Your task to perform on an android device: Open settings Image 0: 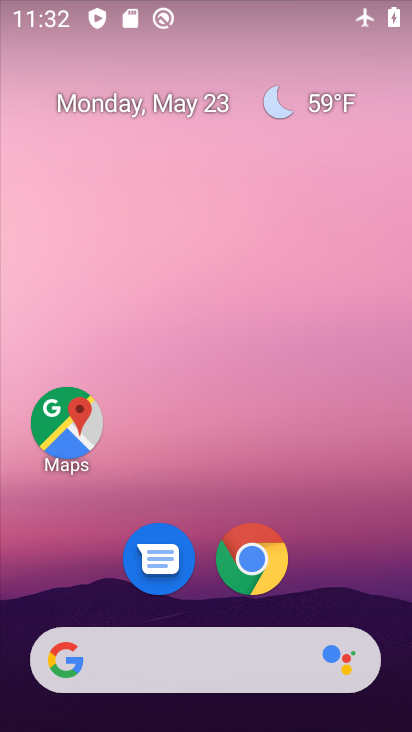
Step 0: drag from (386, 646) to (290, 54)
Your task to perform on an android device: Open settings Image 1: 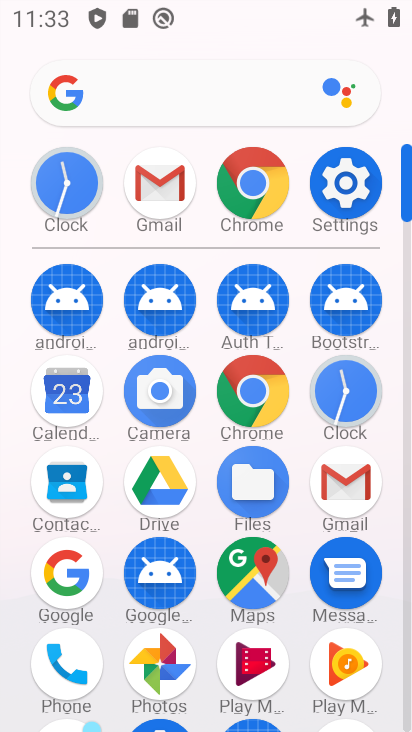
Step 1: click (346, 194)
Your task to perform on an android device: Open settings Image 2: 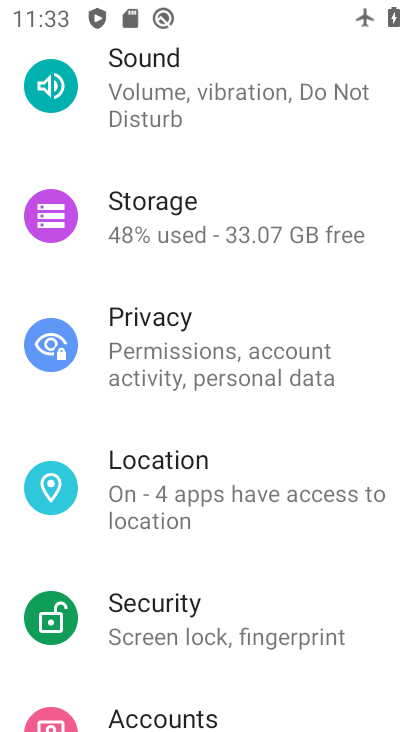
Step 2: task complete